Your task to perform on an android device: open a bookmark in the chrome app Image 0: 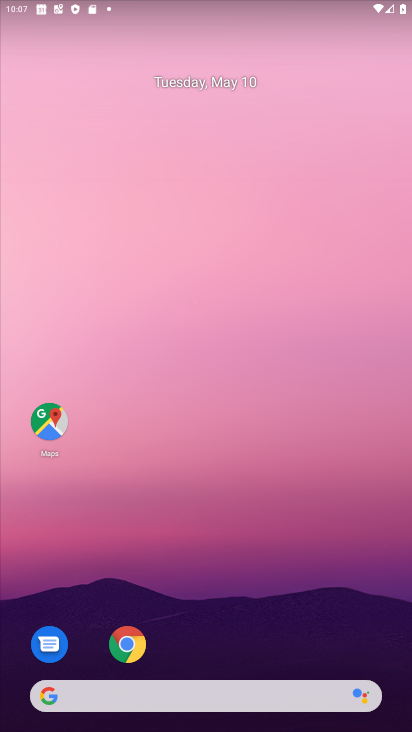
Step 0: drag from (296, 592) to (281, 323)
Your task to perform on an android device: open a bookmark in the chrome app Image 1: 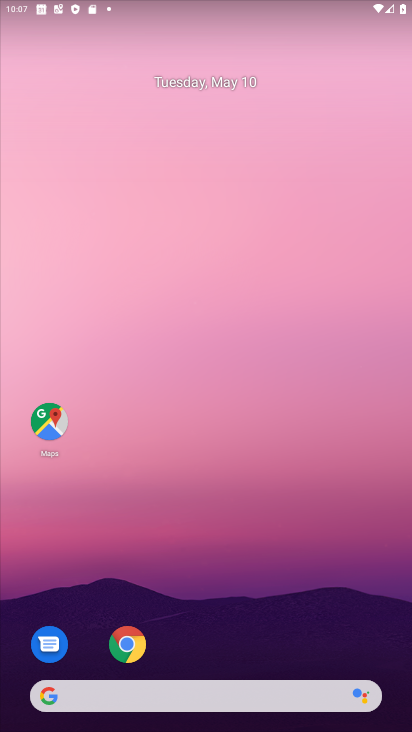
Step 1: click (129, 643)
Your task to perform on an android device: open a bookmark in the chrome app Image 2: 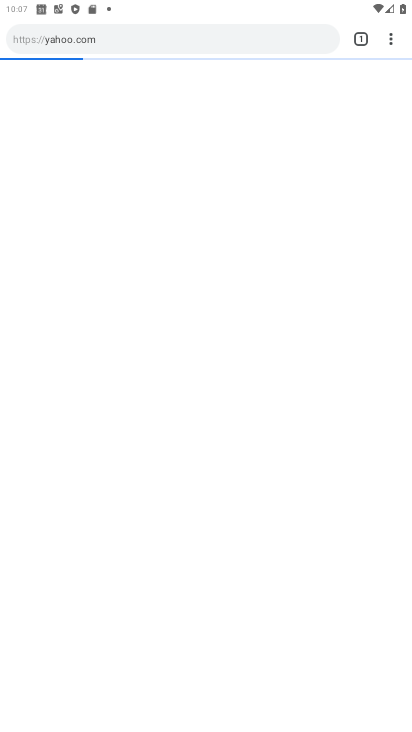
Step 2: click (388, 45)
Your task to perform on an android device: open a bookmark in the chrome app Image 3: 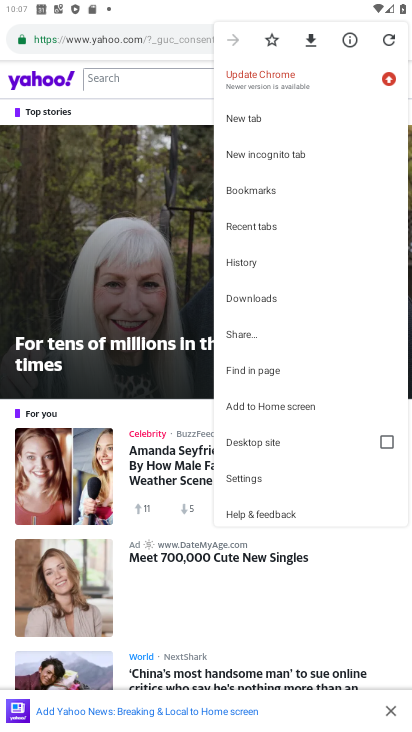
Step 3: click (288, 198)
Your task to perform on an android device: open a bookmark in the chrome app Image 4: 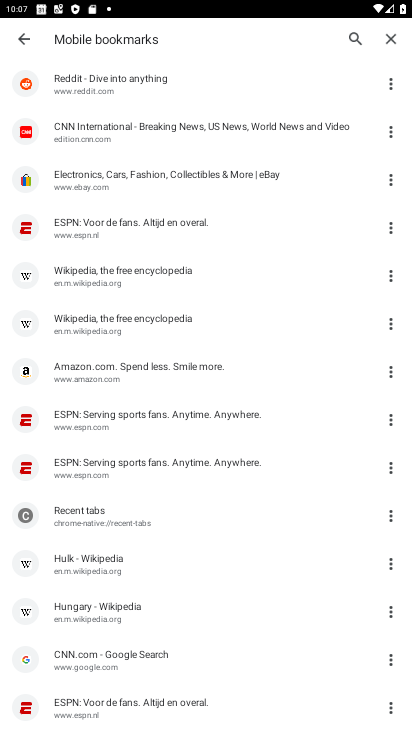
Step 4: click (263, 192)
Your task to perform on an android device: open a bookmark in the chrome app Image 5: 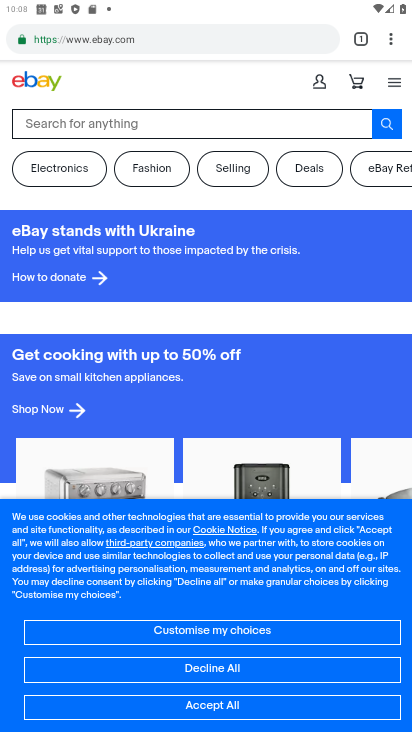
Step 5: task complete